Your task to perform on an android device: Search for "logitech g910" on costco.com, select the first entry, add it to the cart, then select checkout. Image 0: 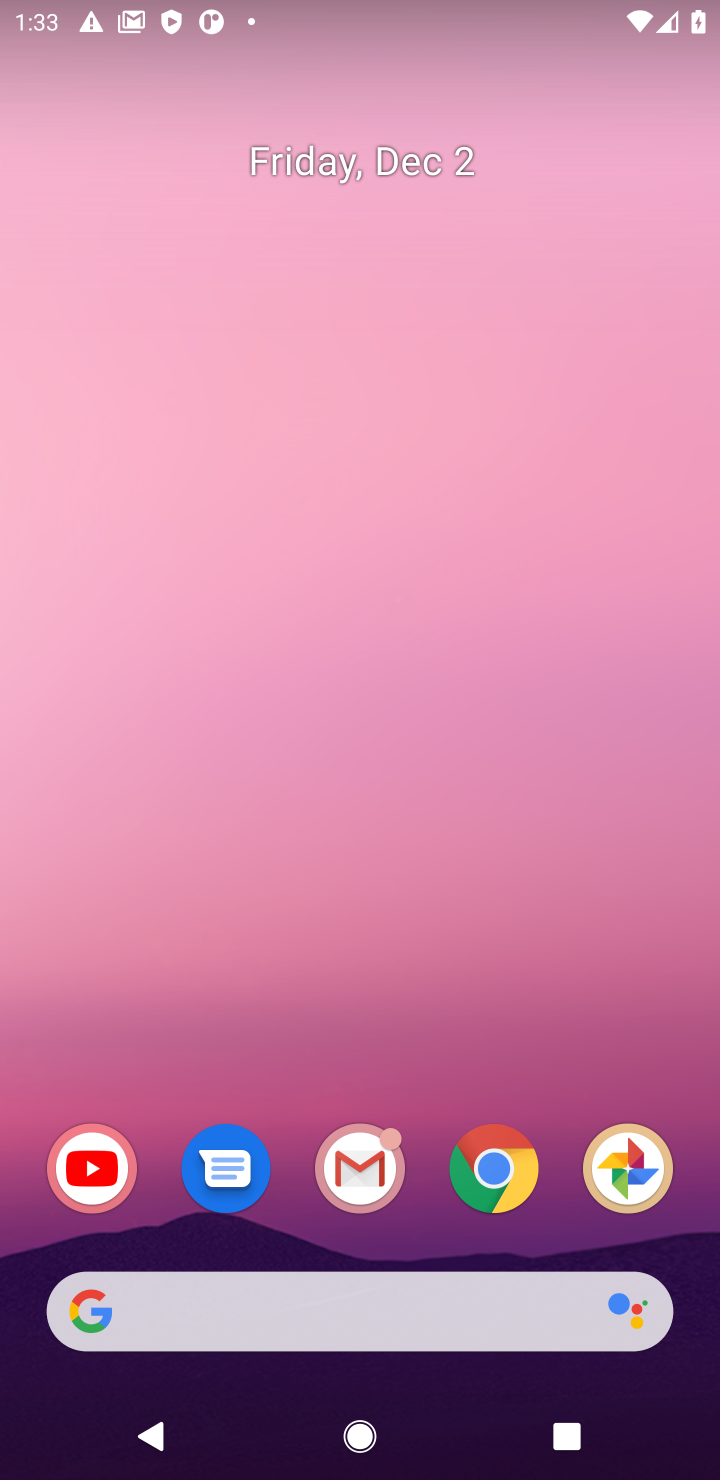
Step 0: click (490, 1179)
Your task to perform on an android device: Search for "logitech g910" on costco.com, select the first entry, add it to the cart, then select checkout. Image 1: 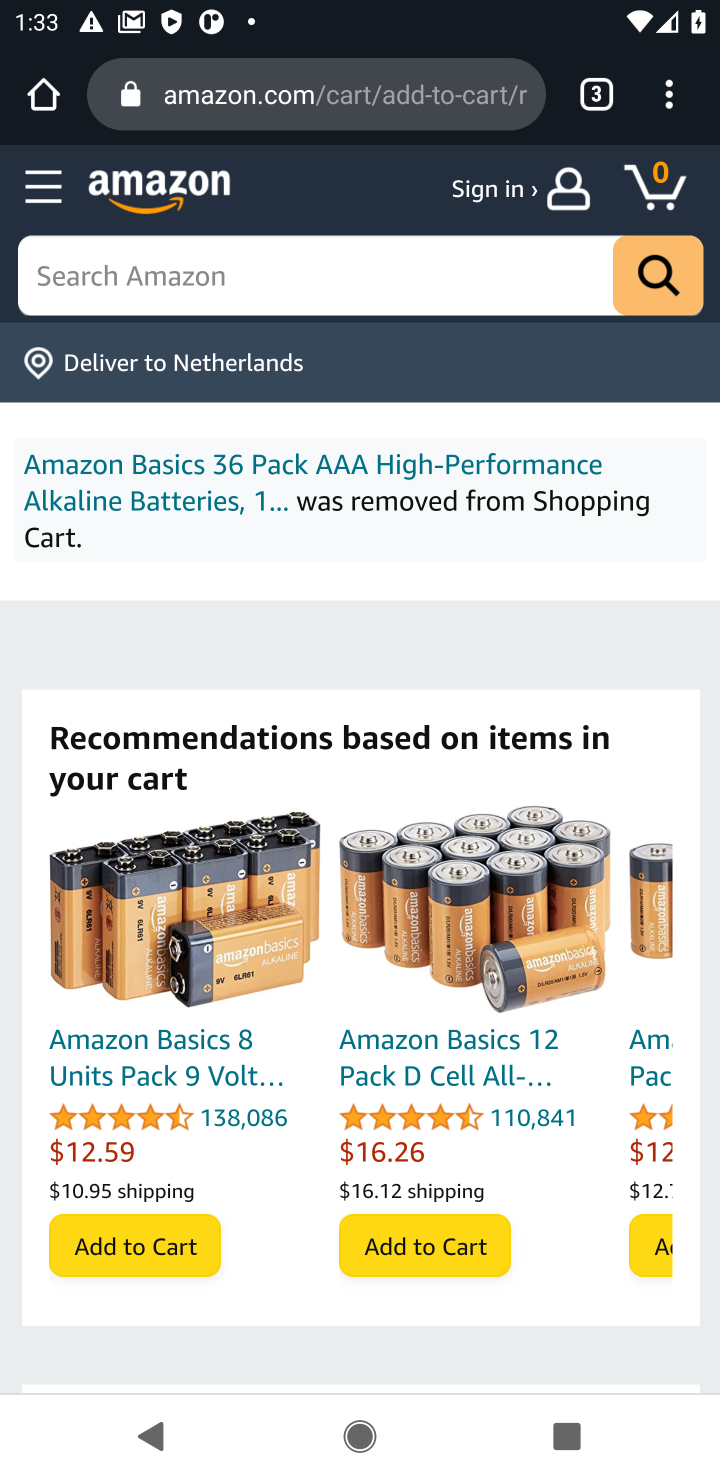
Step 1: click (304, 103)
Your task to perform on an android device: Search for "logitech g910" on costco.com, select the first entry, add it to the cart, then select checkout. Image 2: 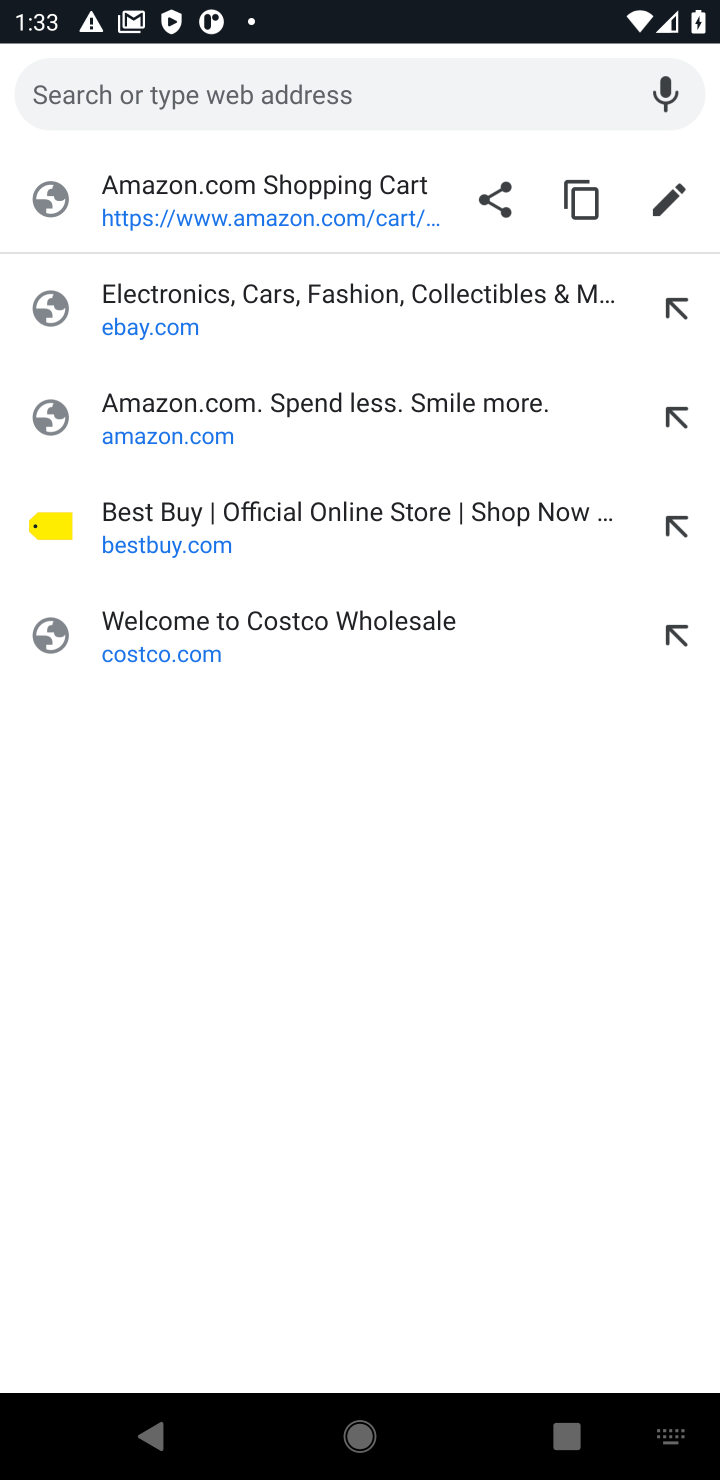
Step 2: click (190, 639)
Your task to perform on an android device: Search for "logitech g910" on costco.com, select the first entry, add it to the cart, then select checkout. Image 3: 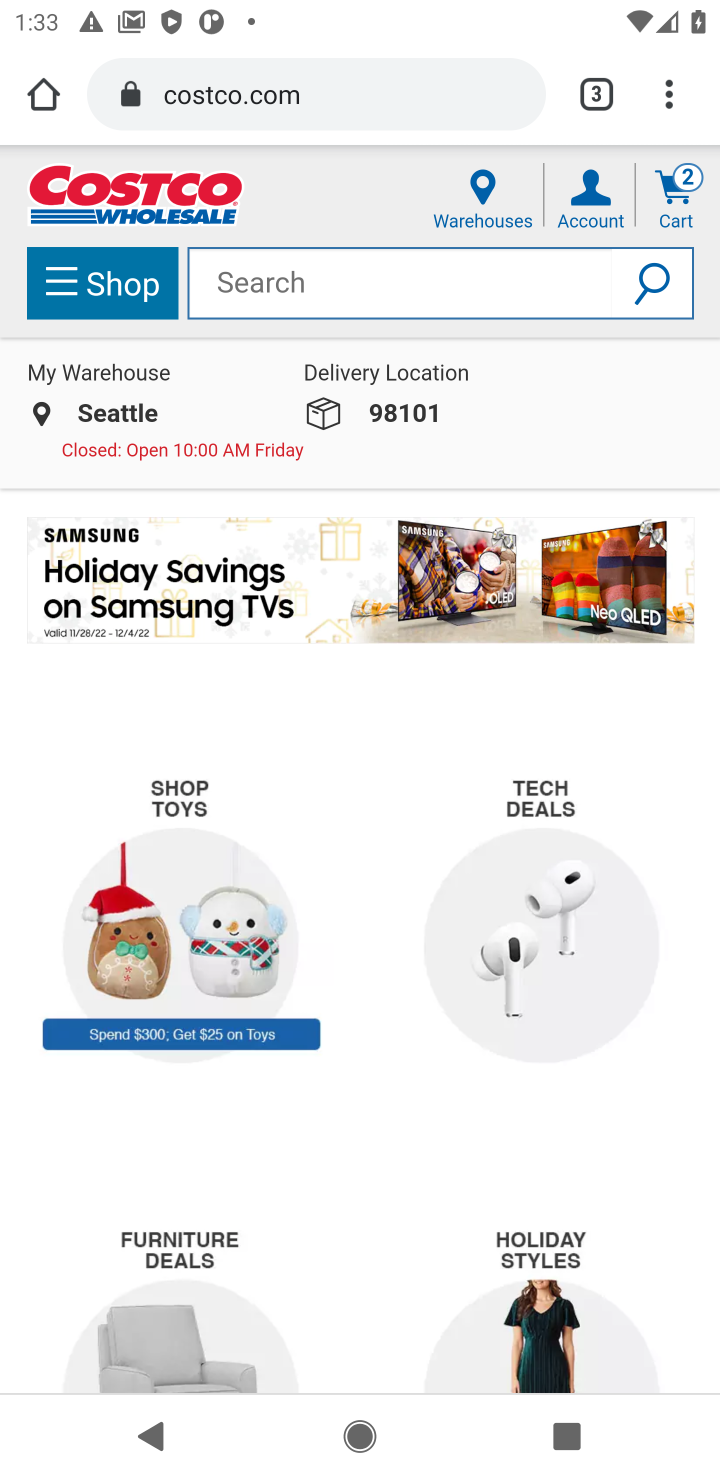
Step 3: click (294, 268)
Your task to perform on an android device: Search for "logitech g910" on costco.com, select the first entry, add it to the cart, then select checkout. Image 4: 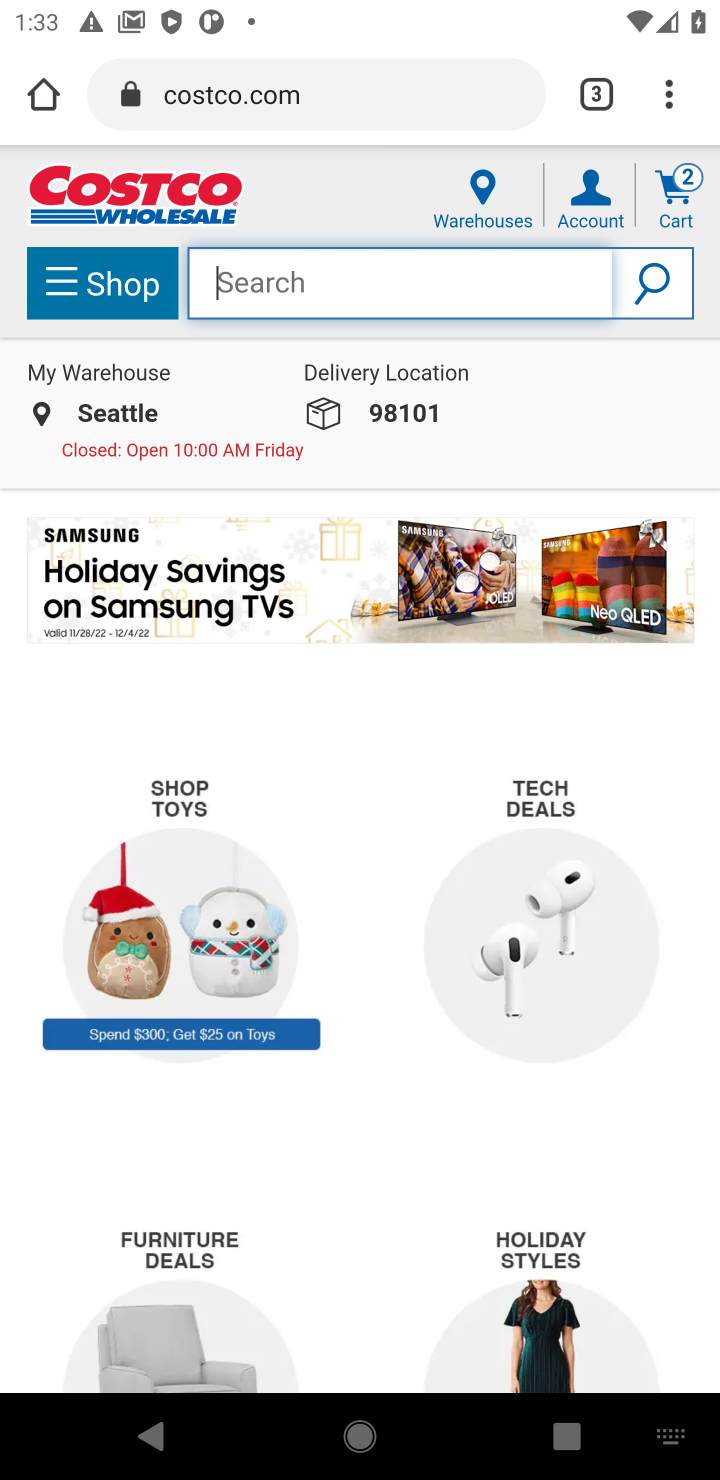
Step 4: type "logitech g910"
Your task to perform on an android device: Search for "logitech g910" on costco.com, select the first entry, add it to the cart, then select checkout. Image 5: 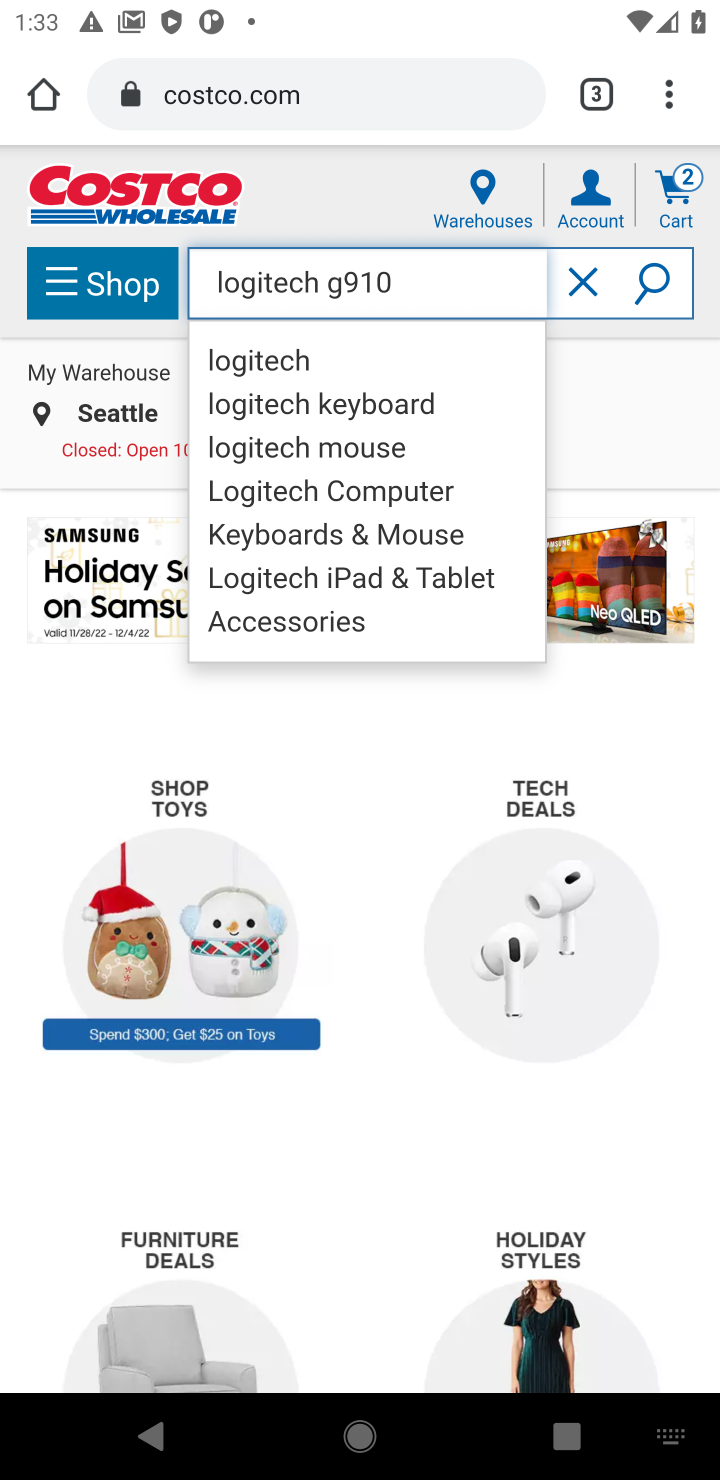
Step 5: click (662, 282)
Your task to perform on an android device: Search for "logitech g910" on costco.com, select the first entry, add it to the cart, then select checkout. Image 6: 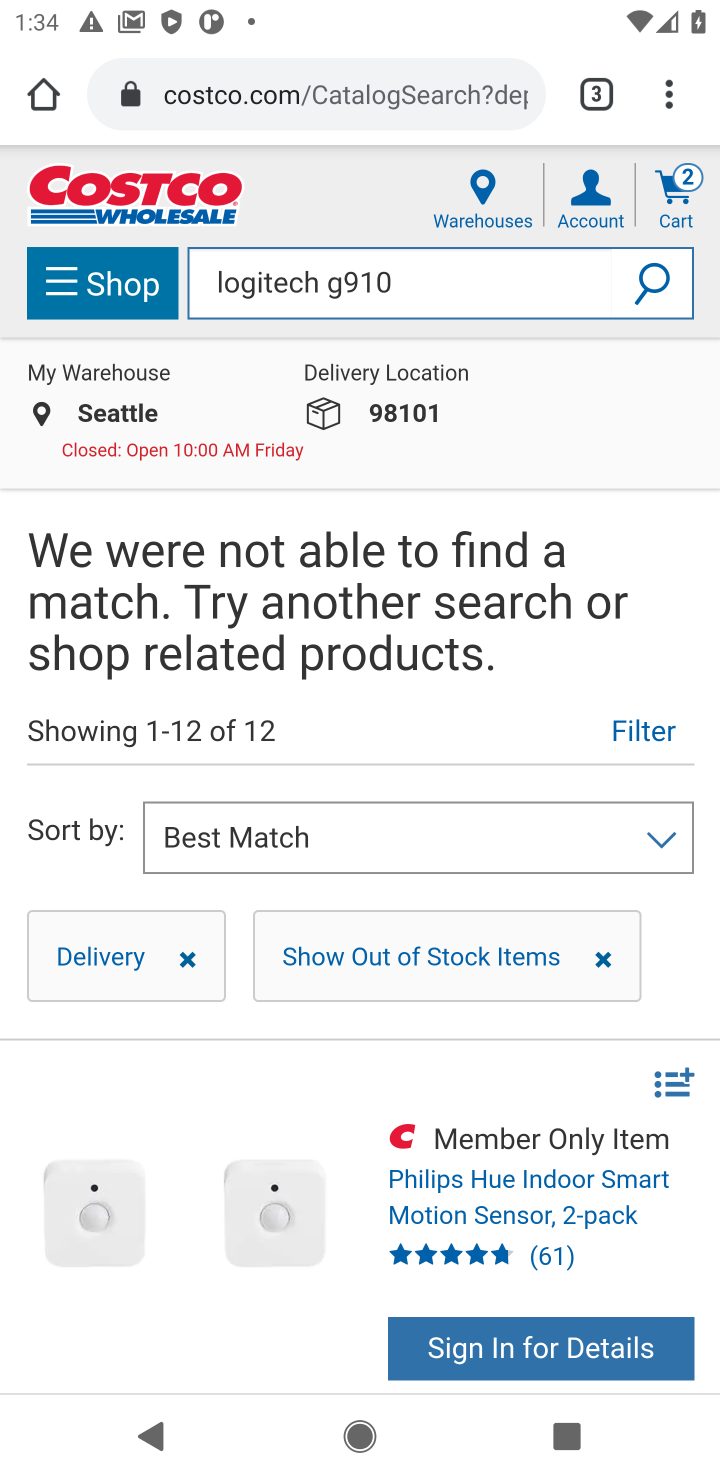
Step 6: task complete